Your task to perform on an android device: Open settings Image 0: 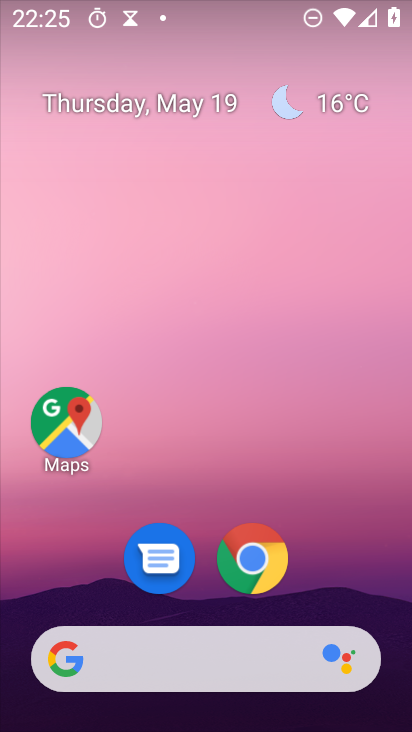
Step 0: drag from (222, 718) to (222, 83)
Your task to perform on an android device: Open settings Image 1: 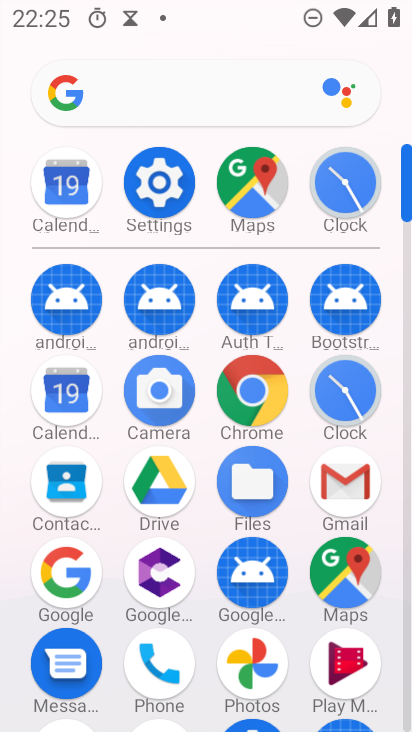
Step 1: click (166, 179)
Your task to perform on an android device: Open settings Image 2: 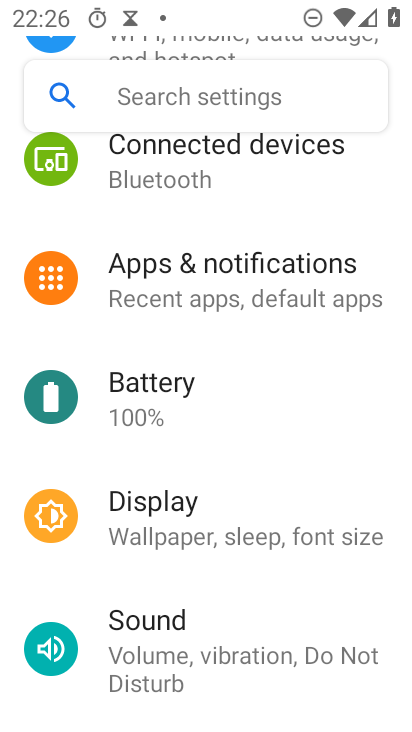
Step 2: task complete